Your task to perform on an android device: check out phone information Image 0: 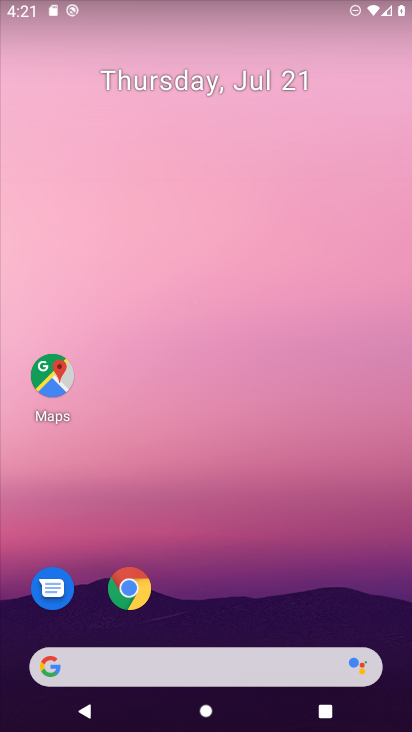
Step 0: drag from (231, 646) to (244, 161)
Your task to perform on an android device: check out phone information Image 1: 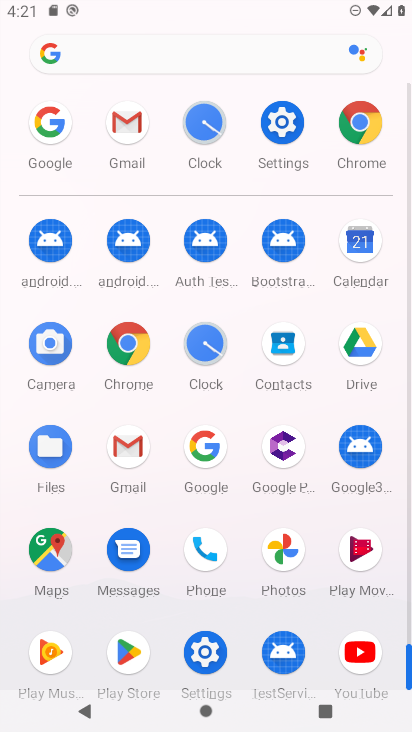
Step 1: click (263, 130)
Your task to perform on an android device: check out phone information Image 2: 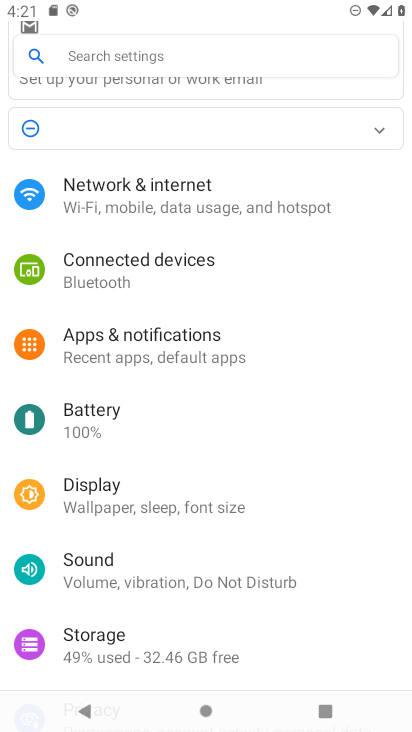
Step 2: drag from (203, 578) to (206, 151)
Your task to perform on an android device: check out phone information Image 3: 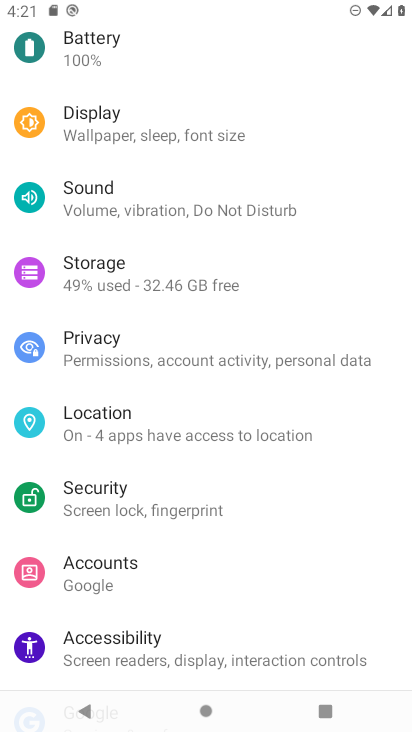
Step 3: drag from (161, 529) to (248, 3)
Your task to perform on an android device: check out phone information Image 4: 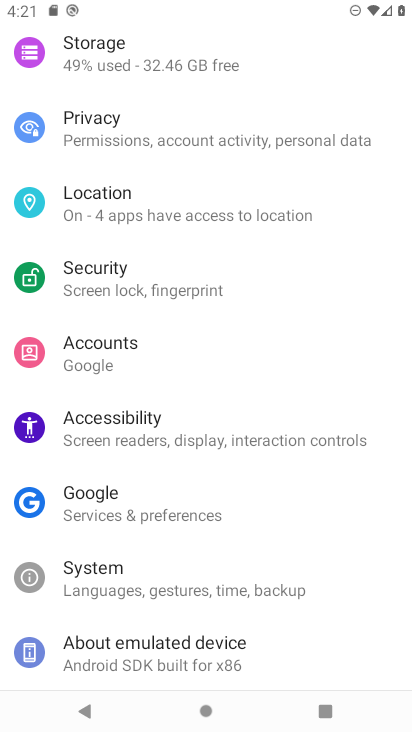
Step 4: drag from (137, 535) to (117, 52)
Your task to perform on an android device: check out phone information Image 5: 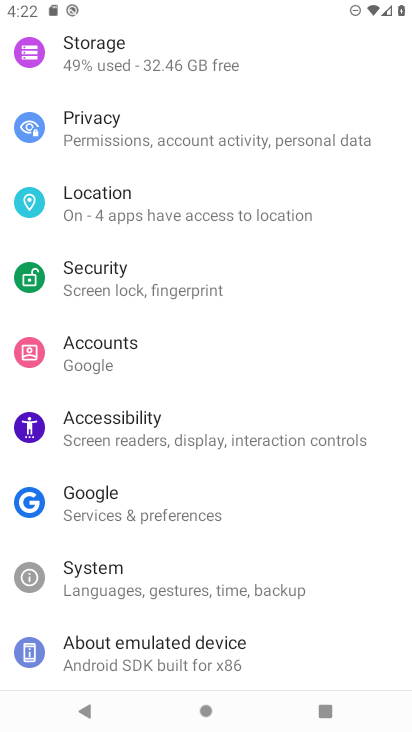
Step 5: drag from (184, 553) to (242, 15)
Your task to perform on an android device: check out phone information Image 6: 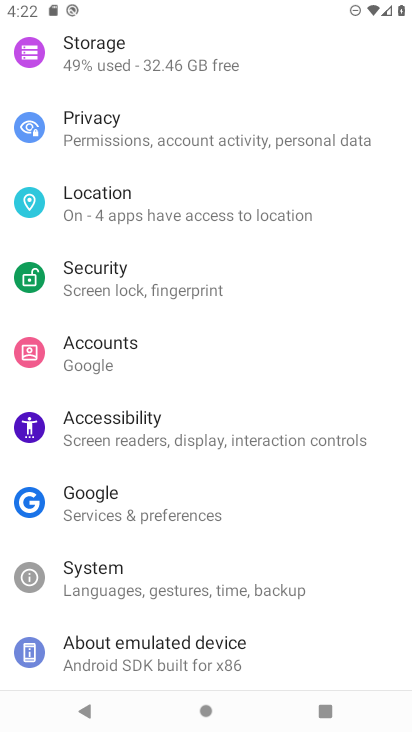
Step 6: click (171, 660)
Your task to perform on an android device: check out phone information Image 7: 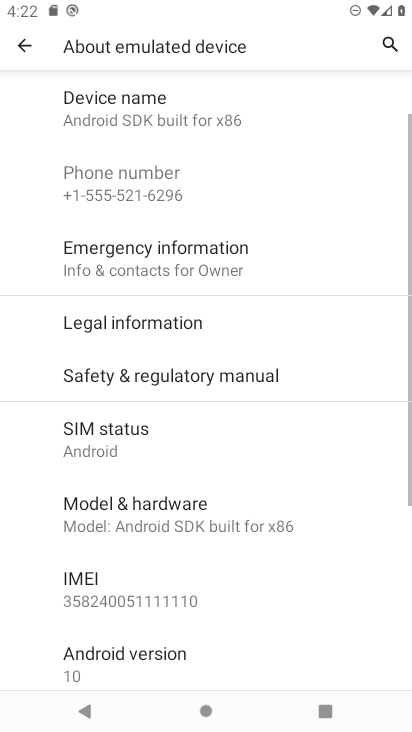
Step 7: task complete